Your task to perform on an android device: What's the weather going to be tomorrow? Image 0: 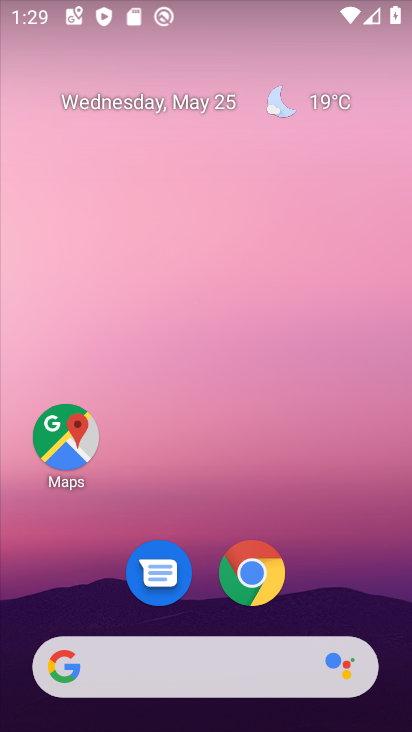
Step 0: click (315, 100)
Your task to perform on an android device: What's the weather going to be tomorrow? Image 1: 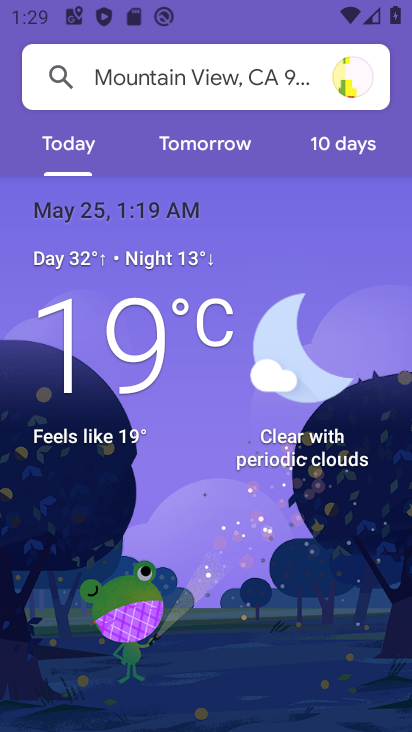
Step 1: click (208, 146)
Your task to perform on an android device: What's the weather going to be tomorrow? Image 2: 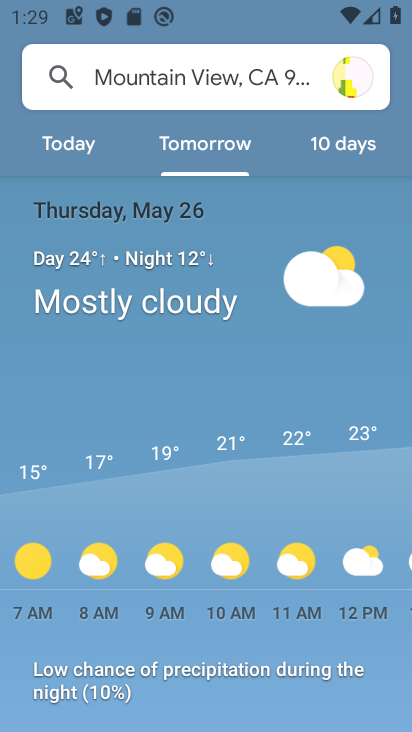
Step 2: task complete